Your task to perform on an android device: Go to eBay Image 0: 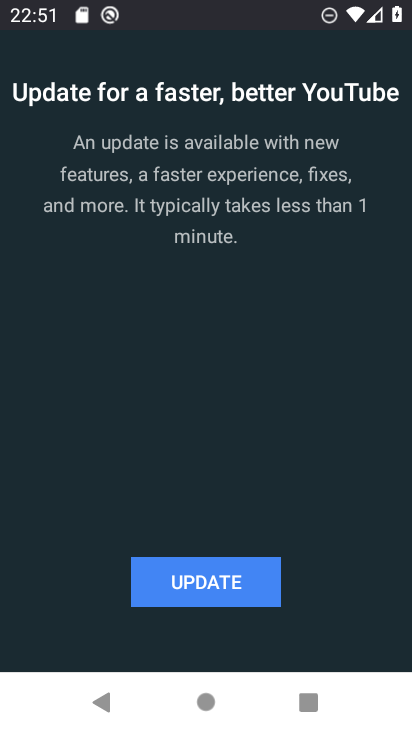
Step 0: press home button
Your task to perform on an android device: Go to eBay Image 1: 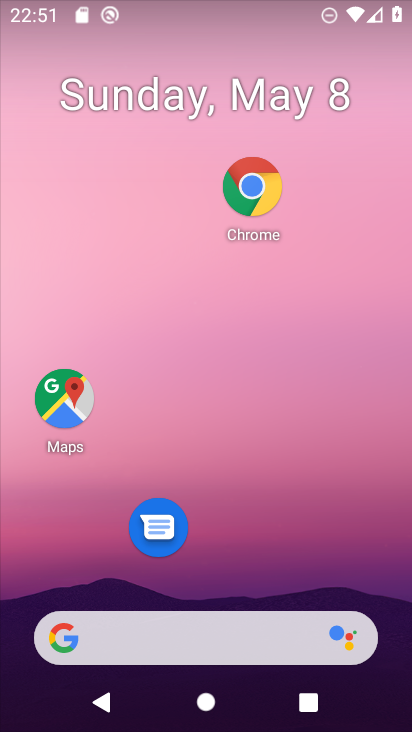
Step 1: drag from (321, 363) to (332, 263)
Your task to perform on an android device: Go to eBay Image 2: 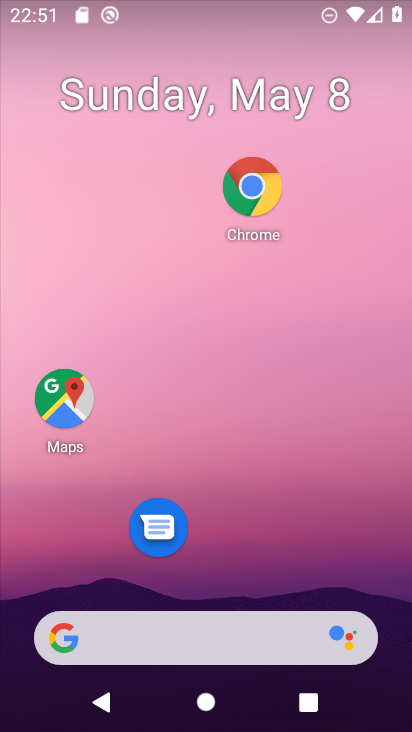
Step 2: drag from (290, 578) to (286, 284)
Your task to perform on an android device: Go to eBay Image 3: 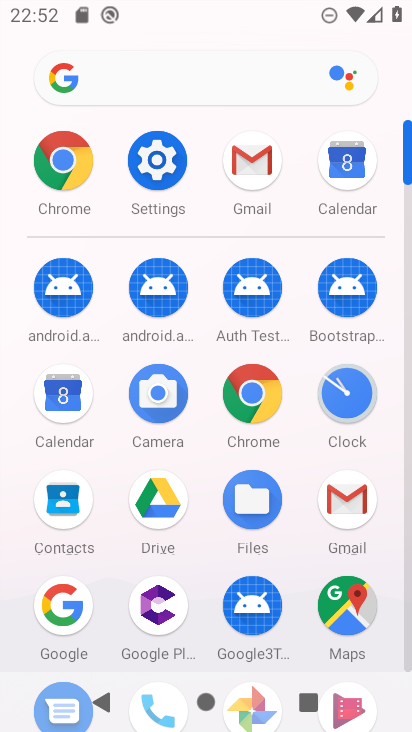
Step 3: click (238, 414)
Your task to perform on an android device: Go to eBay Image 4: 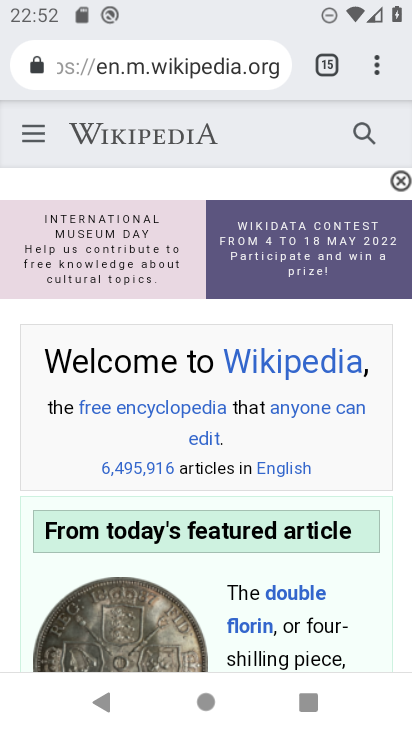
Step 4: click (361, 63)
Your task to perform on an android device: Go to eBay Image 5: 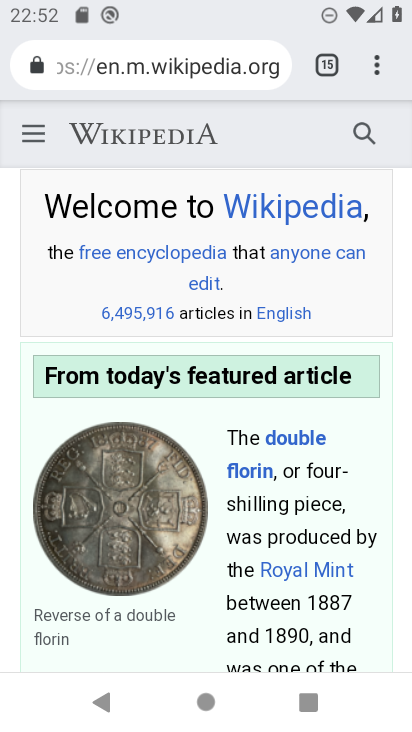
Step 5: click (367, 56)
Your task to perform on an android device: Go to eBay Image 6: 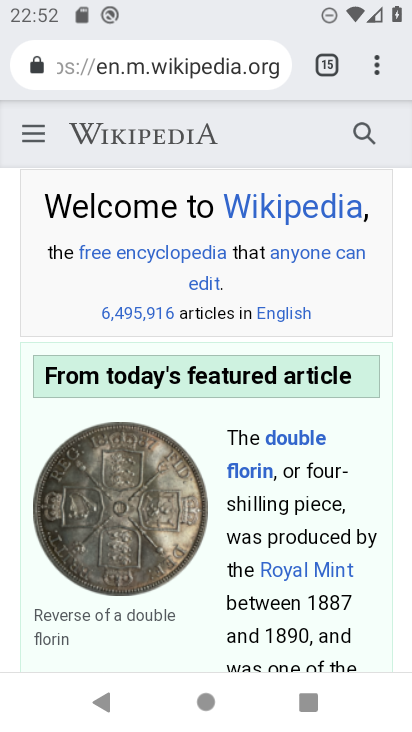
Step 6: click (365, 62)
Your task to perform on an android device: Go to eBay Image 7: 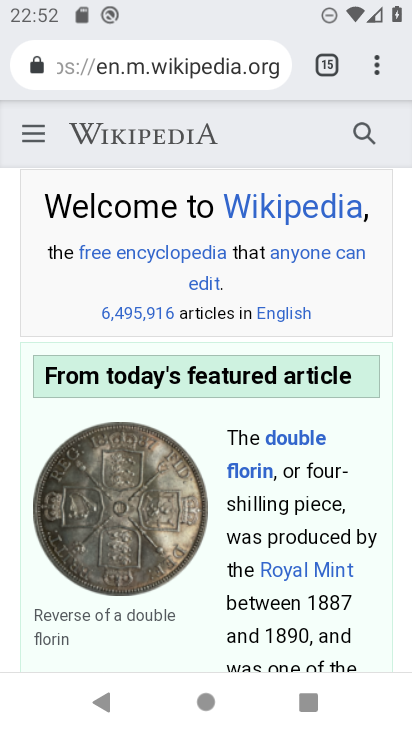
Step 7: click (357, 67)
Your task to perform on an android device: Go to eBay Image 8: 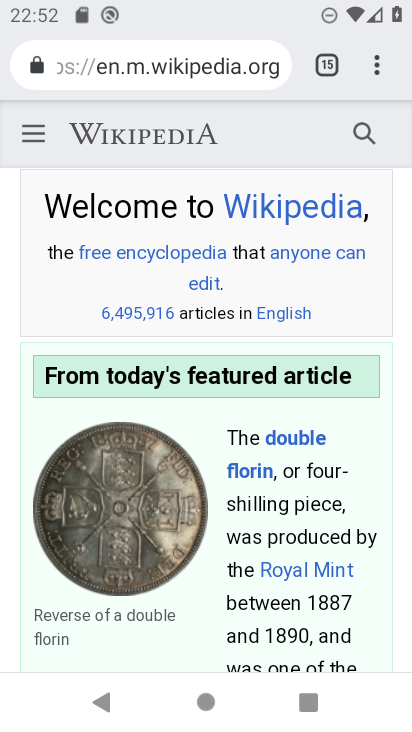
Step 8: click (359, 54)
Your task to perform on an android device: Go to eBay Image 9: 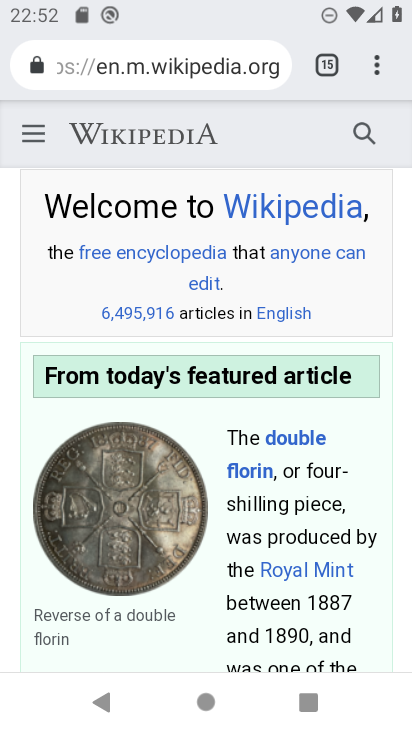
Step 9: click (359, 54)
Your task to perform on an android device: Go to eBay Image 10: 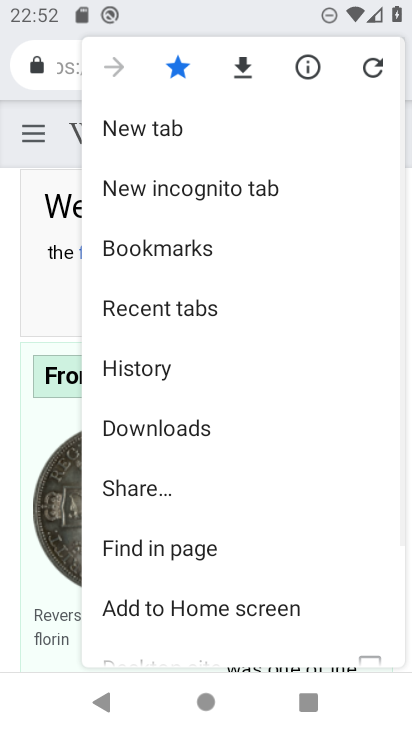
Step 10: click (169, 128)
Your task to perform on an android device: Go to eBay Image 11: 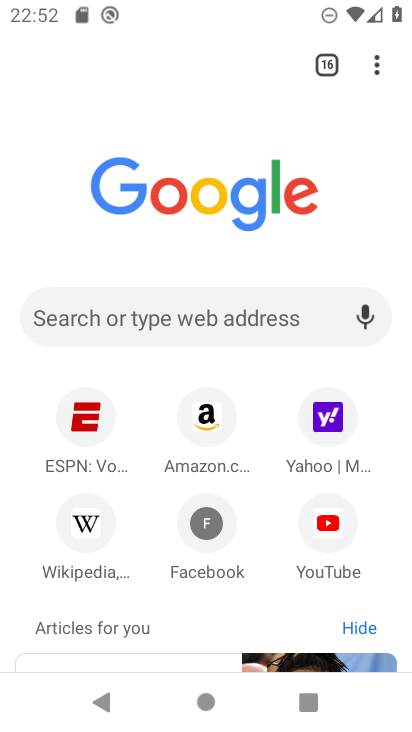
Step 11: click (102, 312)
Your task to perform on an android device: Go to eBay Image 12: 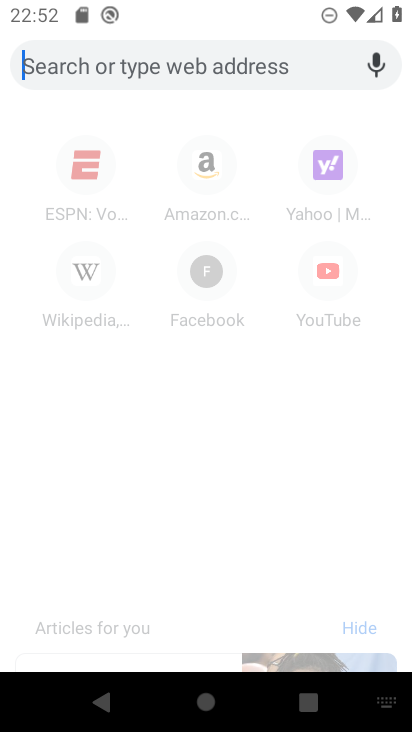
Step 12: type "eBay"
Your task to perform on an android device: Go to eBay Image 13: 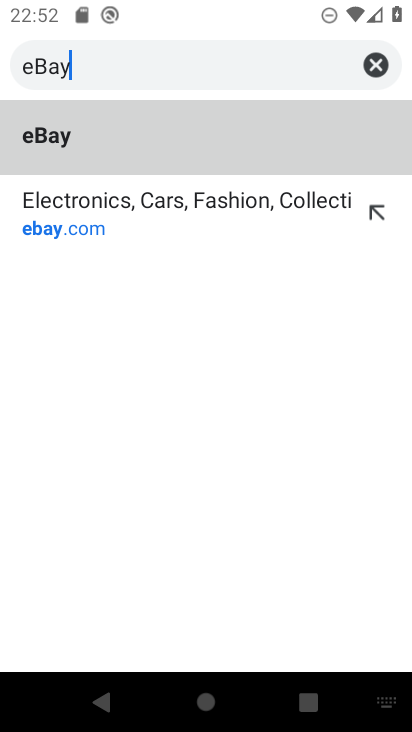
Step 13: click (301, 128)
Your task to perform on an android device: Go to eBay Image 14: 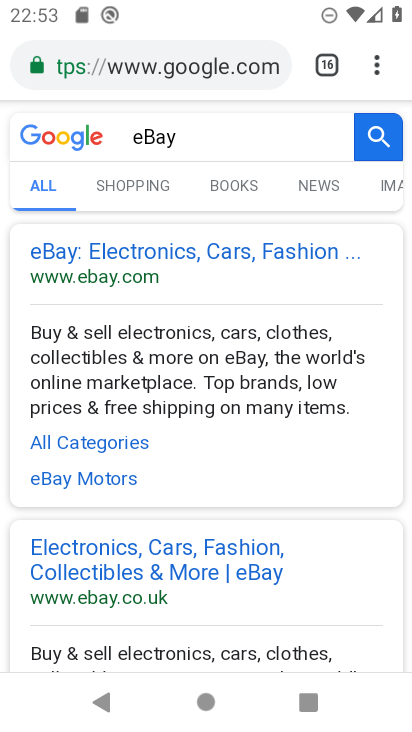
Step 14: task complete